Your task to perform on an android device: search for starred emails in the gmail app Image 0: 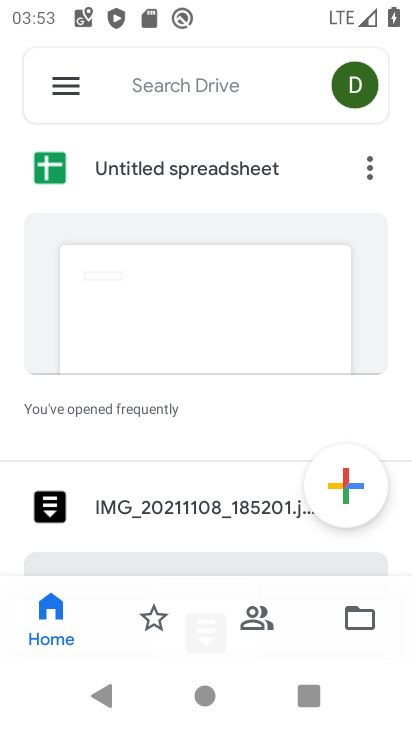
Step 0: press home button
Your task to perform on an android device: search for starred emails in the gmail app Image 1: 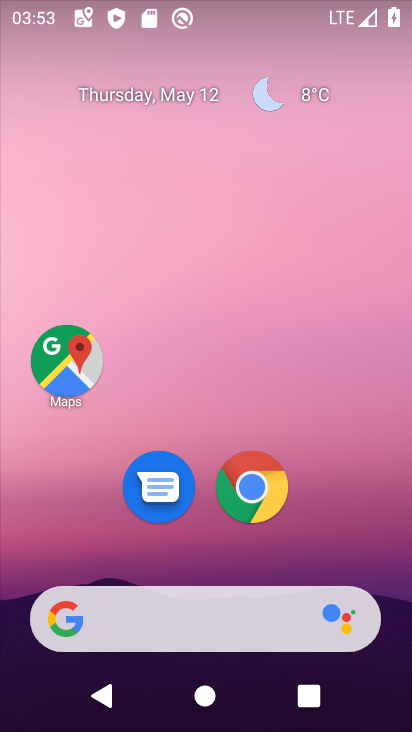
Step 1: drag from (351, 484) to (296, 116)
Your task to perform on an android device: search for starred emails in the gmail app Image 2: 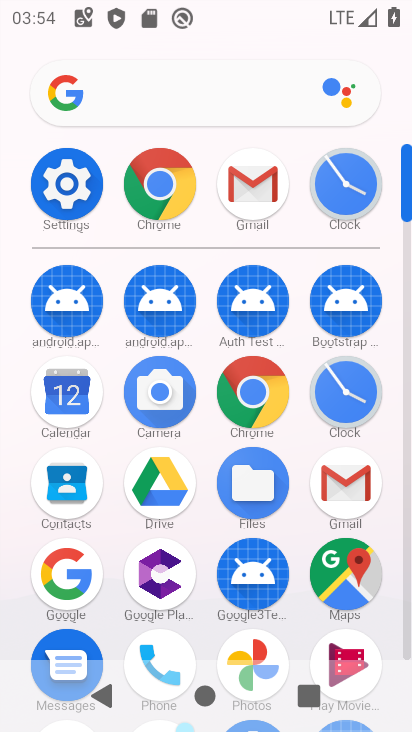
Step 2: click (251, 202)
Your task to perform on an android device: search for starred emails in the gmail app Image 3: 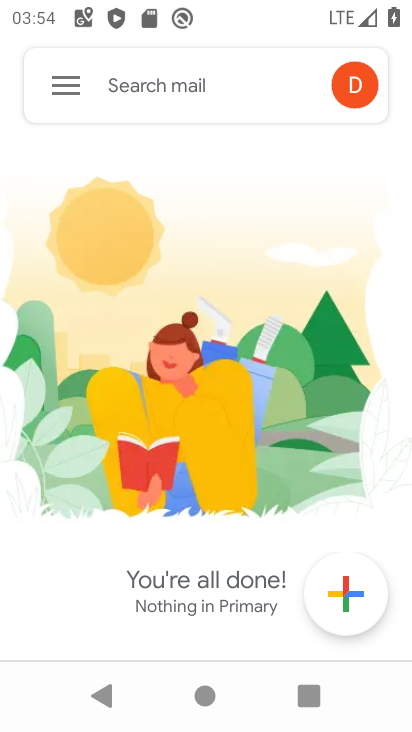
Step 3: click (61, 78)
Your task to perform on an android device: search for starred emails in the gmail app Image 4: 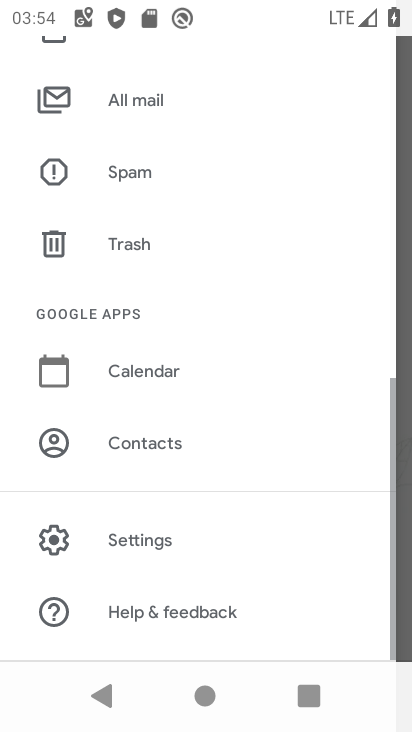
Step 4: drag from (170, 101) to (187, 501)
Your task to perform on an android device: search for starred emails in the gmail app Image 5: 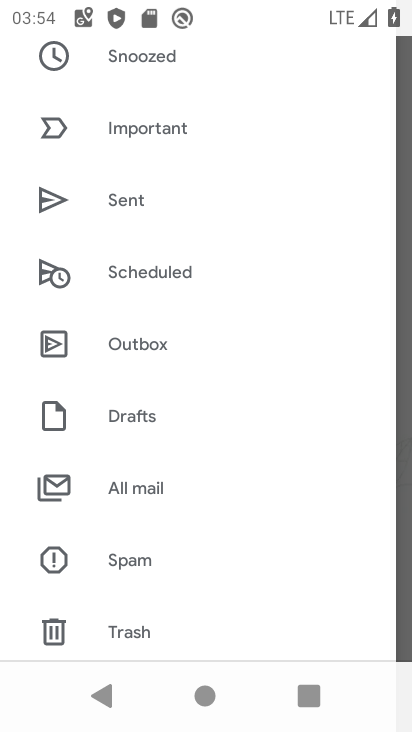
Step 5: drag from (161, 158) to (156, 489)
Your task to perform on an android device: search for starred emails in the gmail app Image 6: 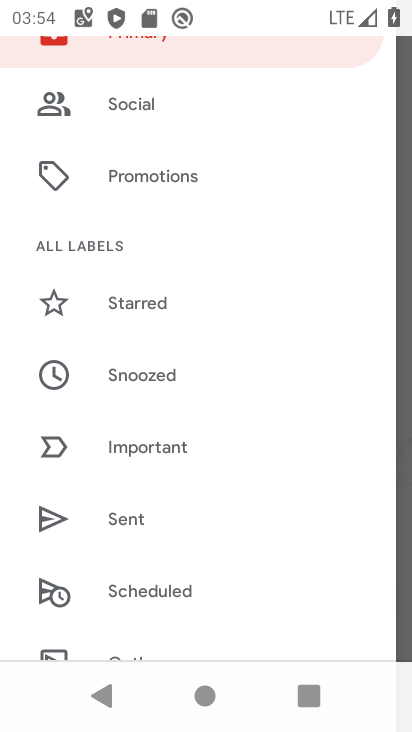
Step 6: click (159, 311)
Your task to perform on an android device: search for starred emails in the gmail app Image 7: 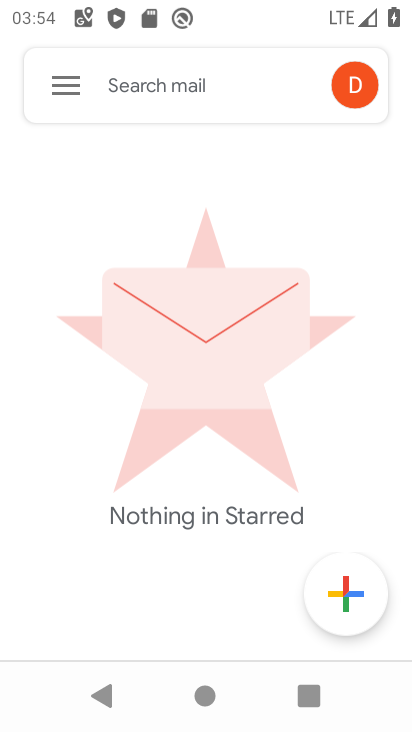
Step 7: task complete